Your task to perform on an android device: Open battery settings Image 0: 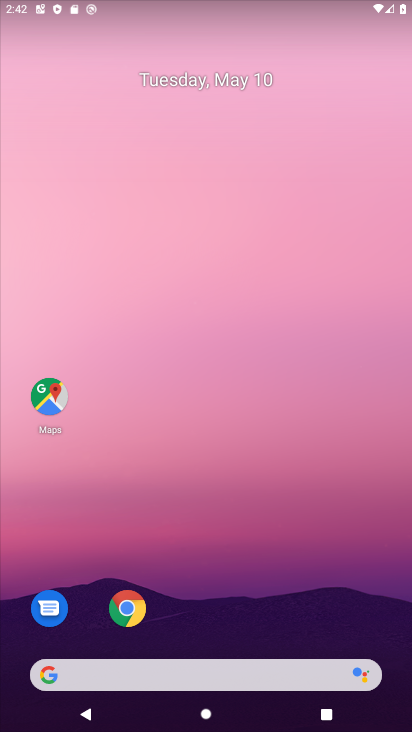
Step 0: drag from (217, 614) to (305, 14)
Your task to perform on an android device: Open battery settings Image 1: 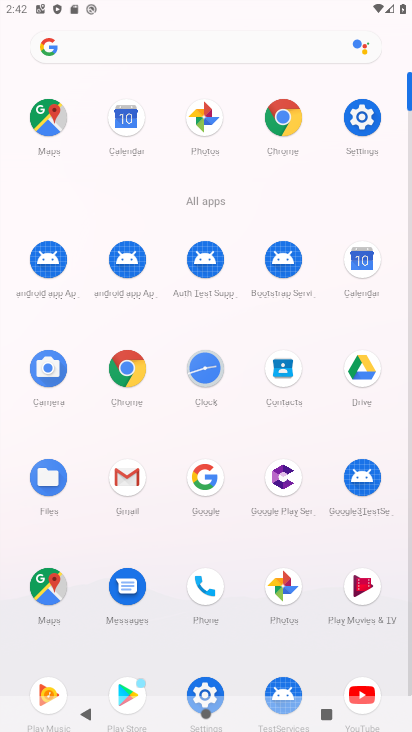
Step 1: click (363, 140)
Your task to perform on an android device: Open battery settings Image 2: 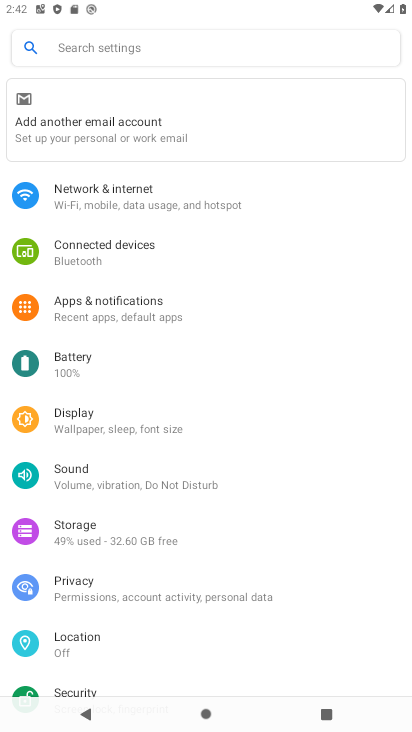
Step 2: click (93, 369)
Your task to perform on an android device: Open battery settings Image 3: 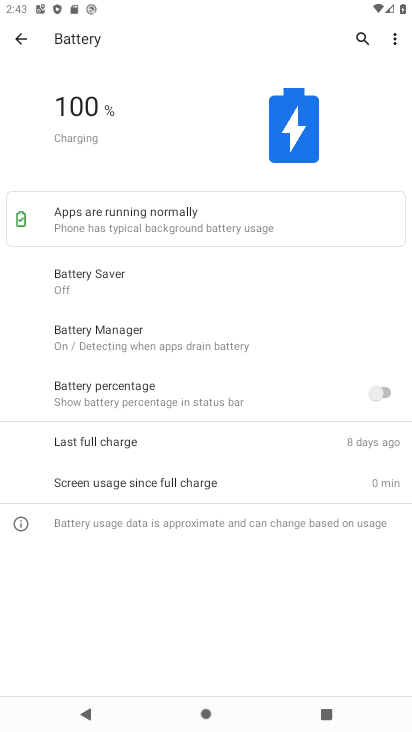
Step 3: click (400, 42)
Your task to perform on an android device: Open battery settings Image 4: 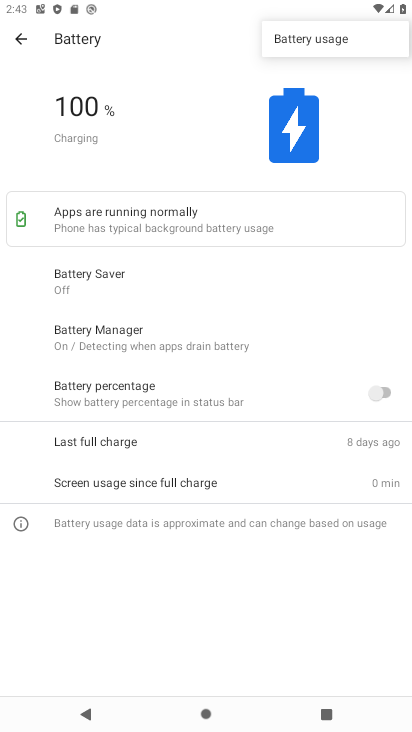
Step 4: task complete